Your task to perform on an android device: toggle translation in the chrome app Image 0: 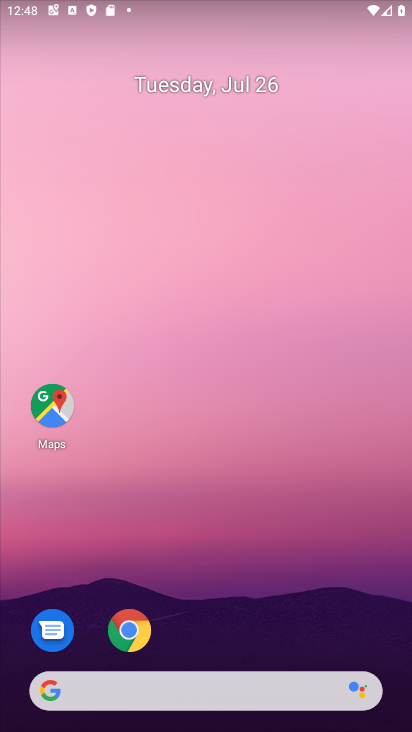
Step 0: click (127, 634)
Your task to perform on an android device: toggle translation in the chrome app Image 1: 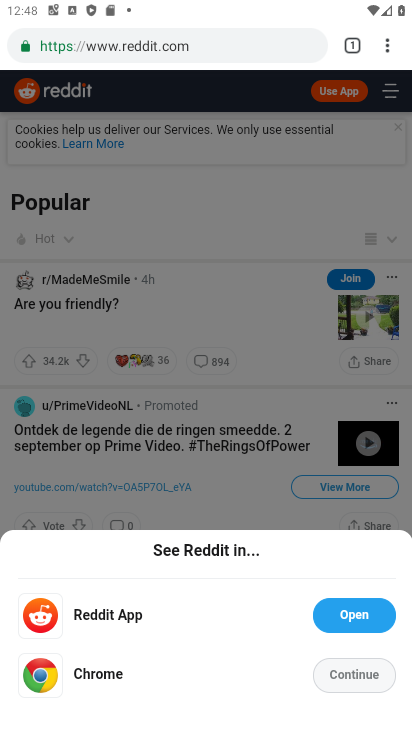
Step 1: click (386, 51)
Your task to perform on an android device: toggle translation in the chrome app Image 2: 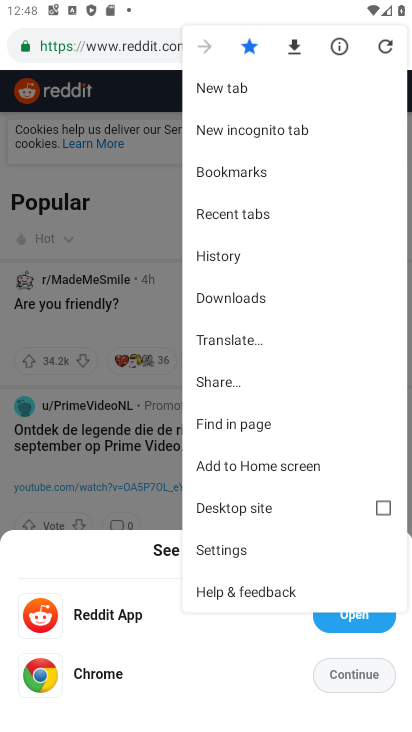
Step 2: click (224, 543)
Your task to perform on an android device: toggle translation in the chrome app Image 3: 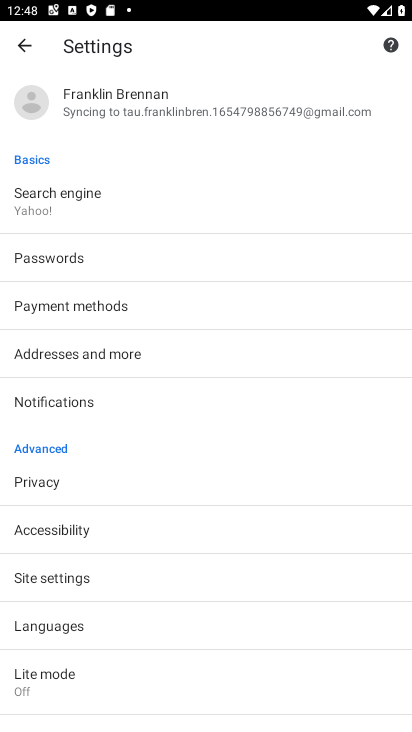
Step 3: click (43, 624)
Your task to perform on an android device: toggle translation in the chrome app Image 4: 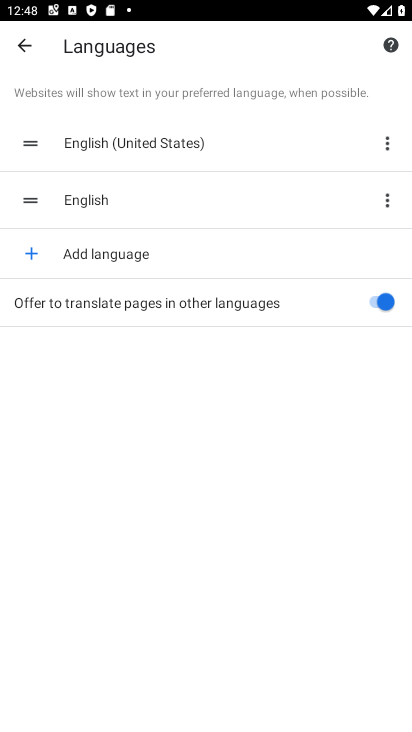
Step 4: click (373, 300)
Your task to perform on an android device: toggle translation in the chrome app Image 5: 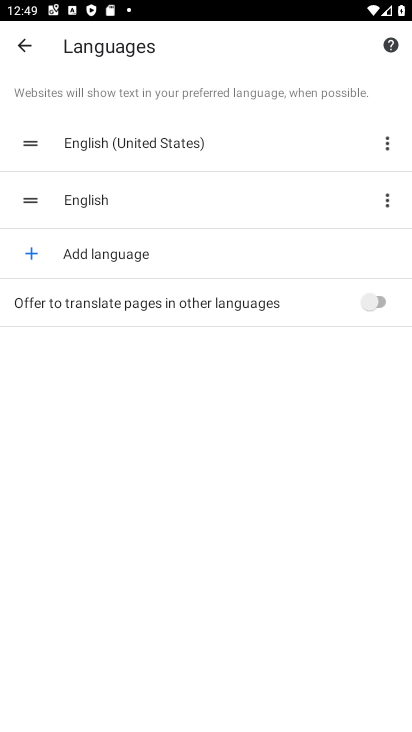
Step 5: task complete